Your task to perform on an android device: turn on bluetooth scan Image 0: 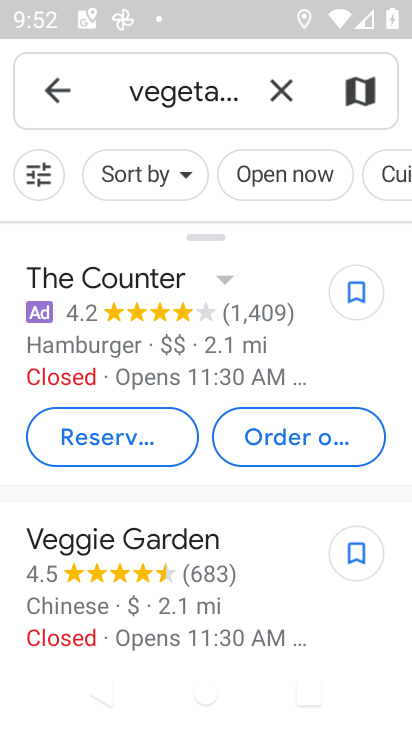
Step 0: press home button
Your task to perform on an android device: turn on bluetooth scan Image 1: 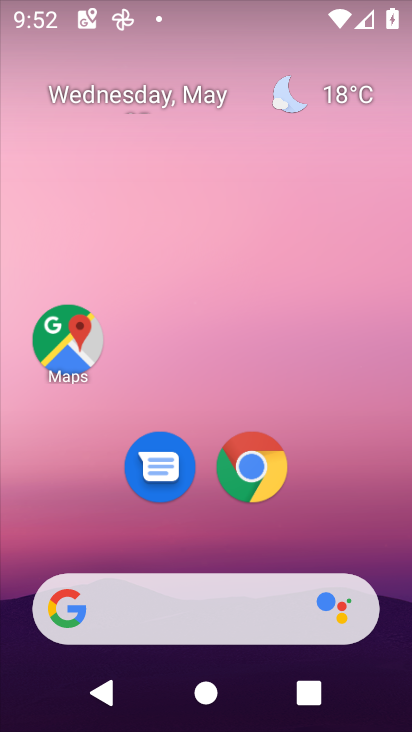
Step 1: drag from (289, 513) to (331, 9)
Your task to perform on an android device: turn on bluetooth scan Image 2: 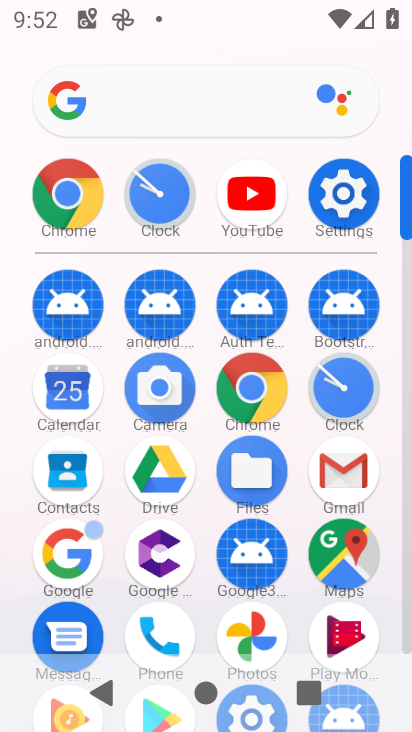
Step 2: click (348, 181)
Your task to perform on an android device: turn on bluetooth scan Image 3: 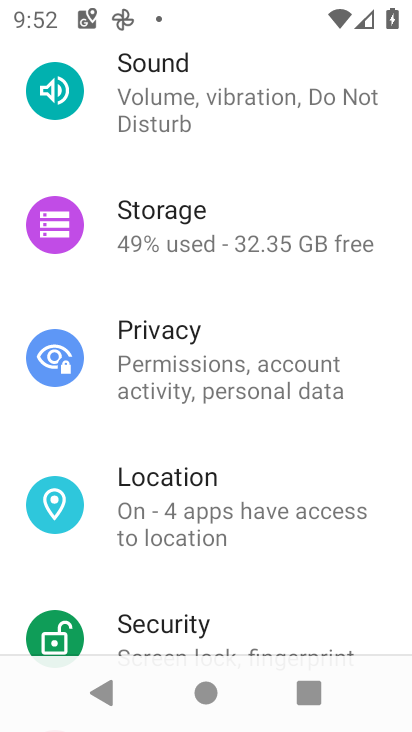
Step 3: drag from (316, 185) to (229, 555)
Your task to perform on an android device: turn on bluetooth scan Image 4: 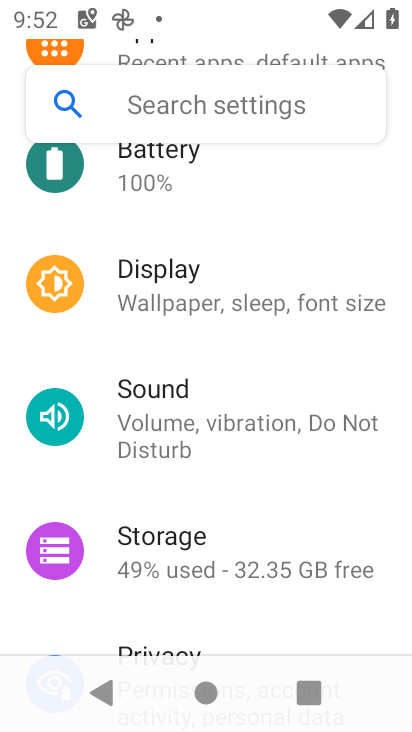
Step 4: drag from (284, 238) to (254, 593)
Your task to perform on an android device: turn on bluetooth scan Image 5: 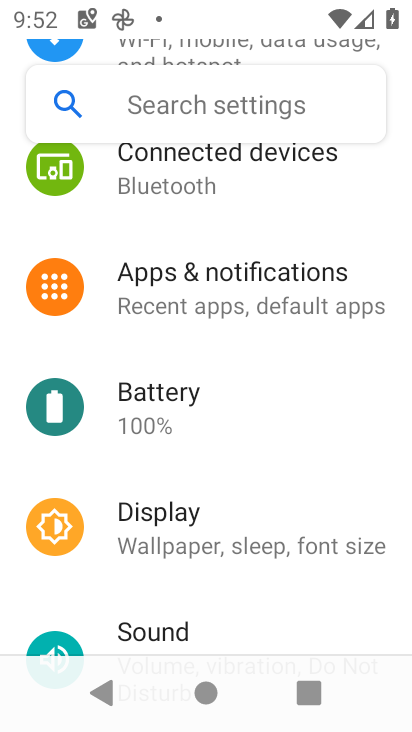
Step 5: drag from (258, 215) to (245, 570)
Your task to perform on an android device: turn on bluetooth scan Image 6: 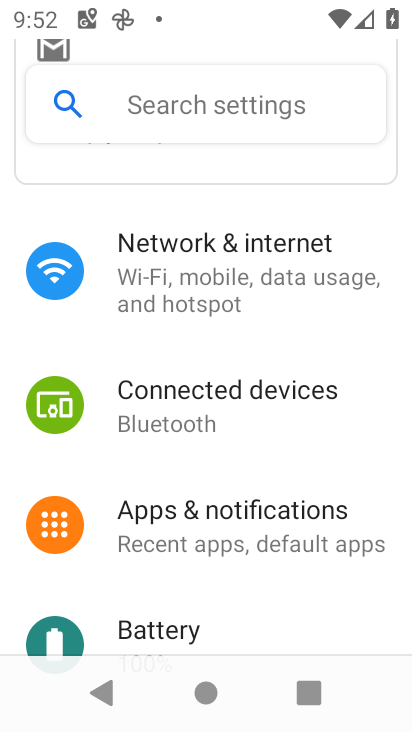
Step 6: click (222, 252)
Your task to perform on an android device: turn on bluetooth scan Image 7: 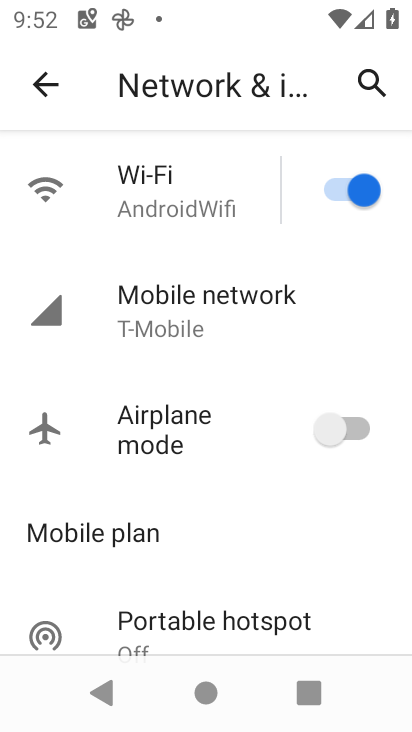
Step 7: click (57, 95)
Your task to perform on an android device: turn on bluetooth scan Image 8: 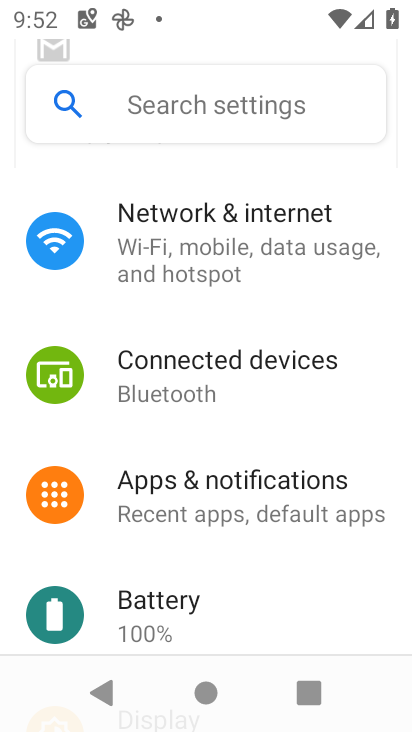
Step 8: drag from (248, 532) to (317, 104)
Your task to perform on an android device: turn on bluetooth scan Image 9: 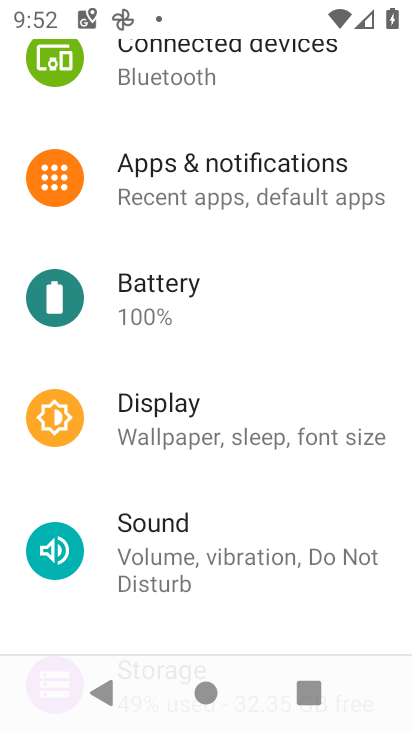
Step 9: drag from (217, 443) to (301, 94)
Your task to perform on an android device: turn on bluetooth scan Image 10: 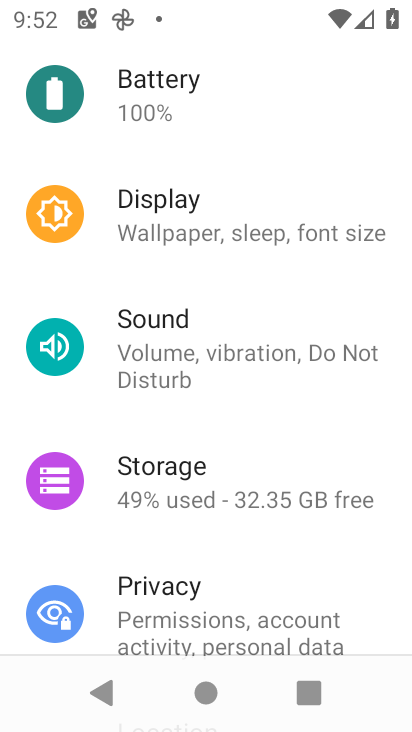
Step 10: drag from (228, 525) to (300, 171)
Your task to perform on an android device: turn on bluetooth scan Image 11: 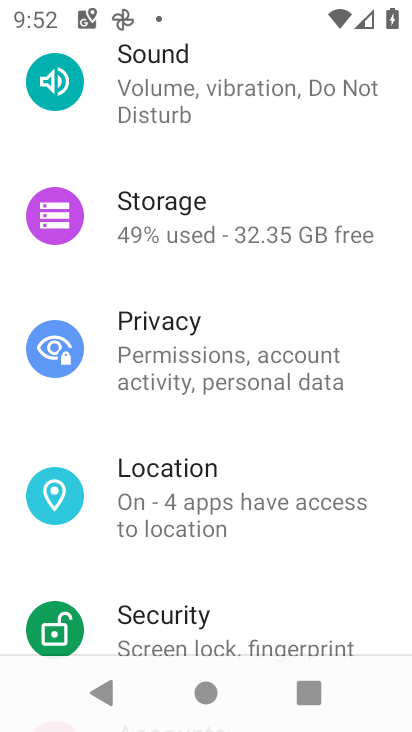
Step 11: click (228, 514)
Your task to perform on an android device: turn on bluetooth scan Image 12: 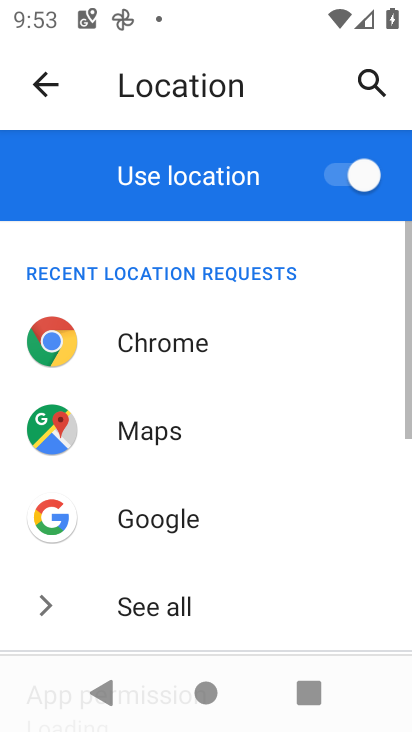
Step 12: drag from (236, 569) to (289, 101)
Your task to perform on an android device: turn on bluetooth scan Image 13: 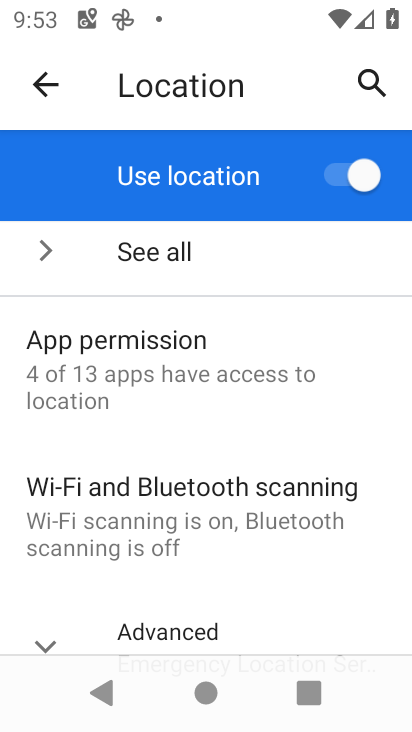
Step 13: click (200, 516)
Your task to perform on an android device: turn on bluetooth scan Image 14: 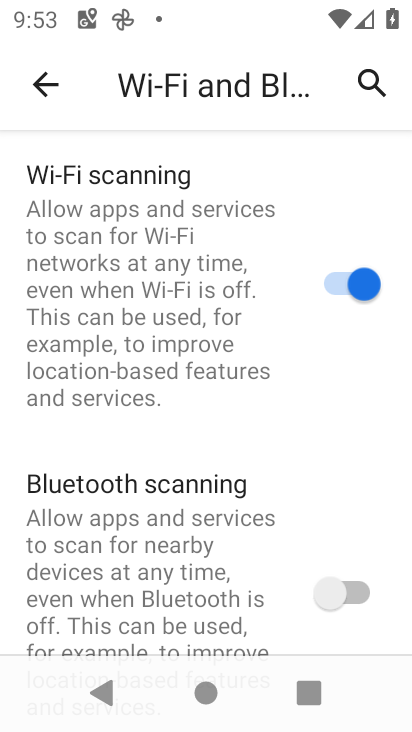
Step 14: click (372, 599)
Your task to perform on an android device: turn on bluetooth scan Image 15: 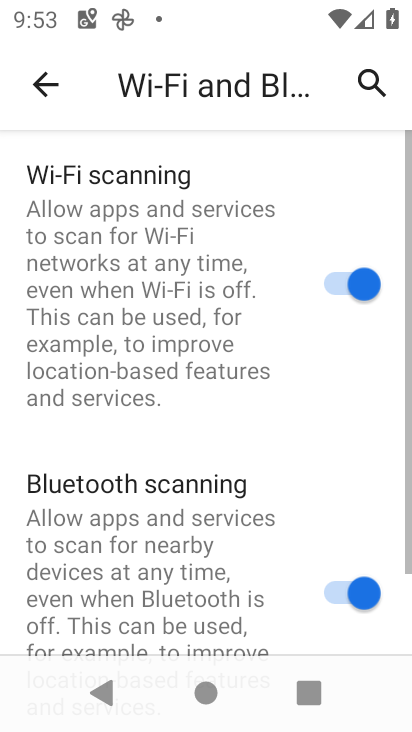
Step 15: task complete